Your task to perform on an android device: Search for the best rated drill on Lowes.com Image 0: 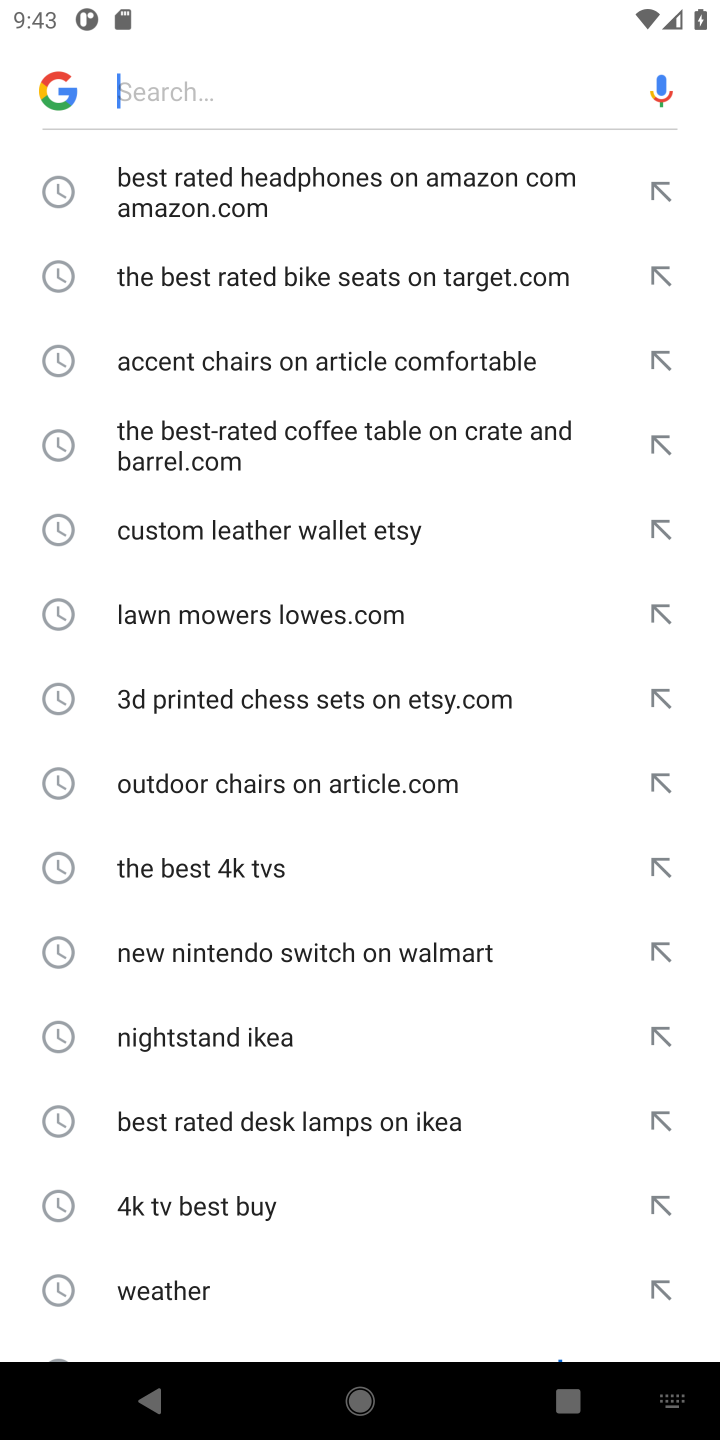
Step 0: type "best rated drill on Lowes.com"
Your task to perform on an android device: Search for the best rated drill on Lowes.com Image 1: 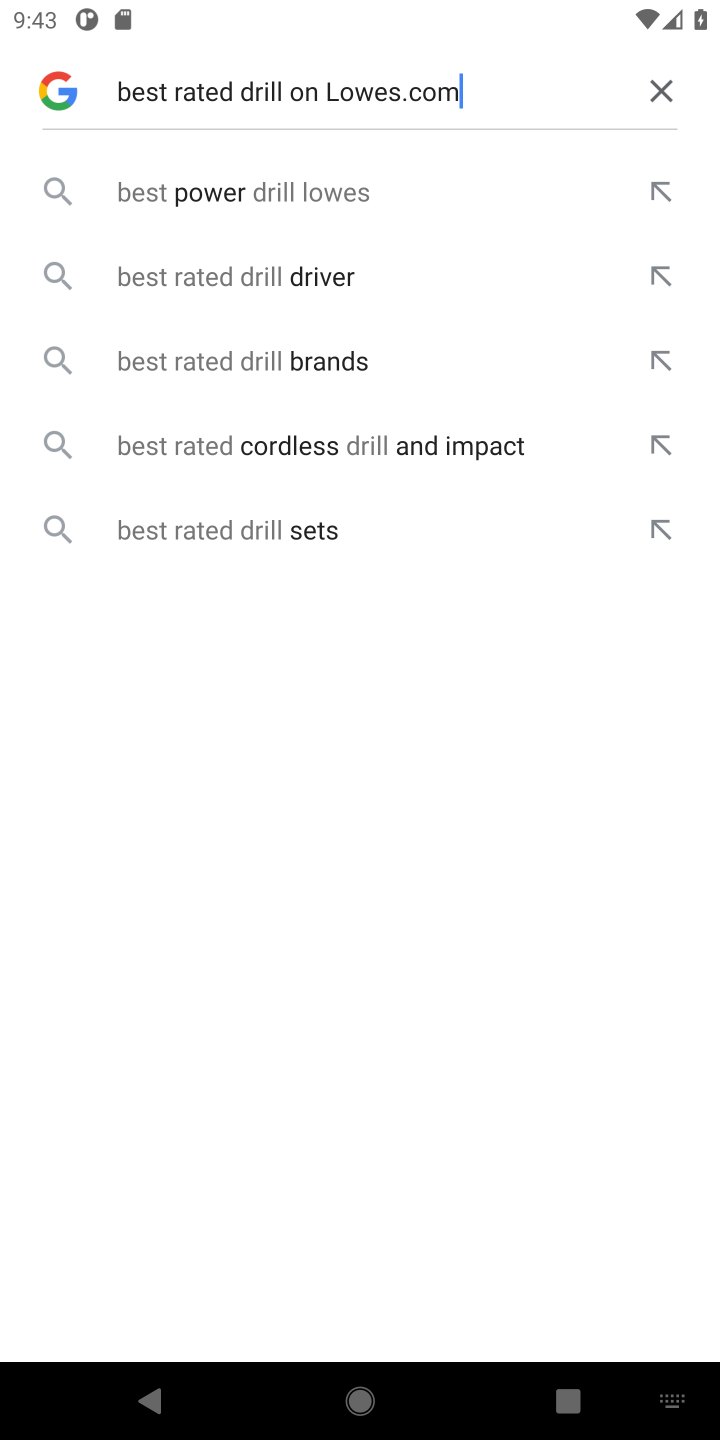
Step 1: click (269, 194)
Your task to perform on an android device: Search for the best rated drill on Lowes.com Image 2: 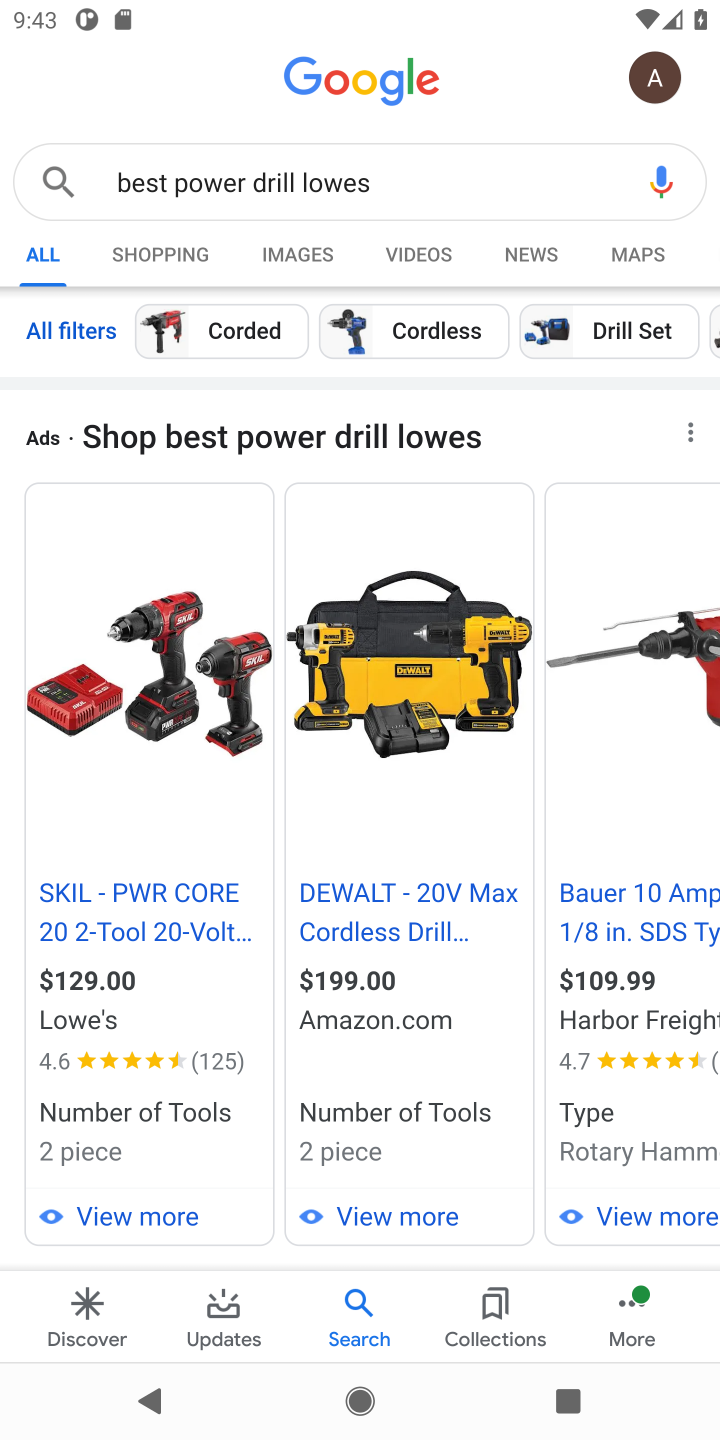
Step 2: task complete